Your task to perform on an android device: See recent photos Image 0: 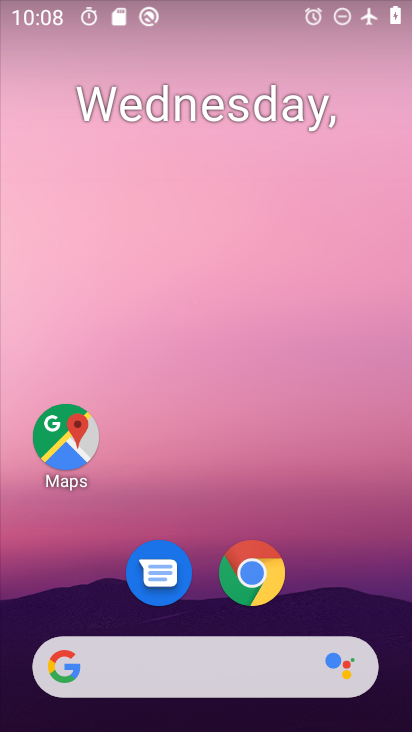
Step 0: drag from (336, 598) to (322, 156)
Your task to perform on an android device: See recent photos Image 1: 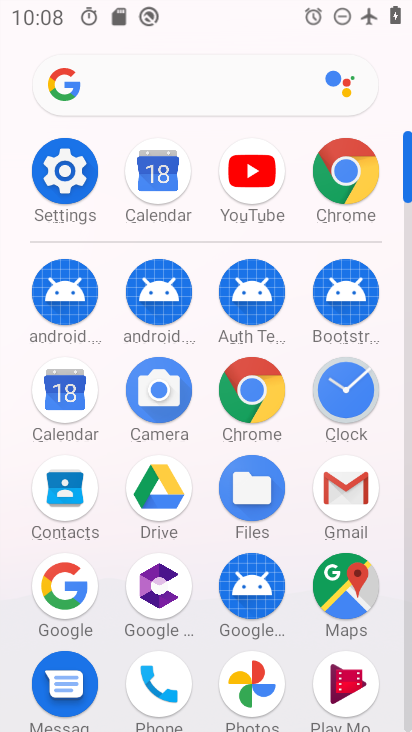
Step 1: drag from (281, 541) to (324, 198)
Your task to perform on an android device: See recent photos Image 2: 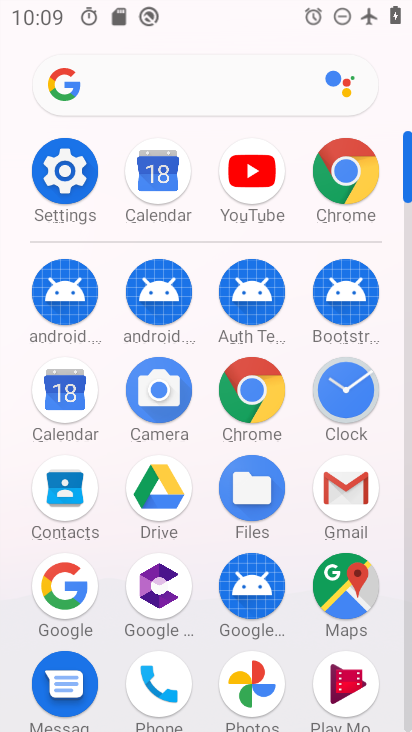
Step 2: click (257, 681)
Your task to perform on an android device: See recent photos Image 3: 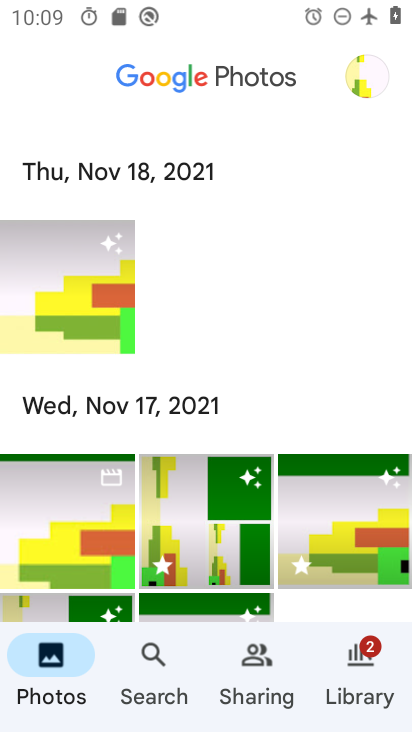
Step 3: press home button
Your task to perform on an android device: See recent photos Image 4: 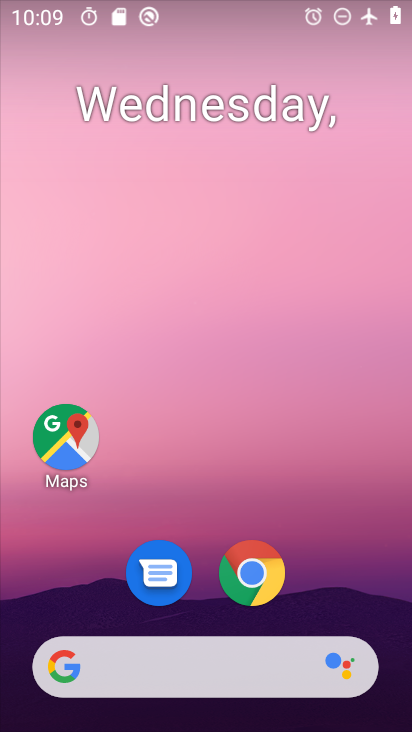
Step 4: drag from (287, 636) to (290, 324)
Your task to perform on an android device: See recent photos Image 5: 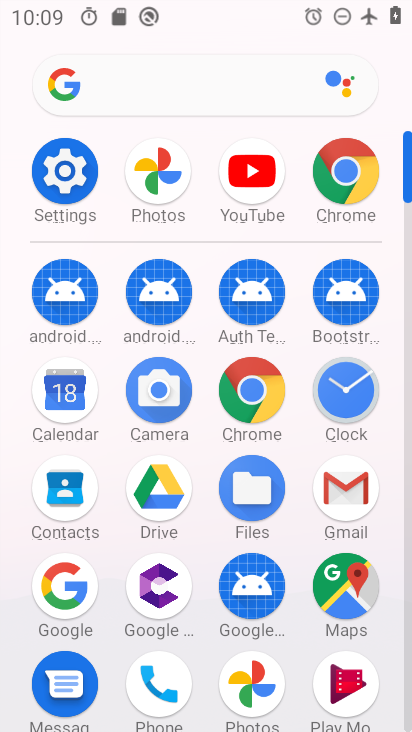
Step 5: click (260, 679)
Your task to perform on an android device: See recent photos Image 6: 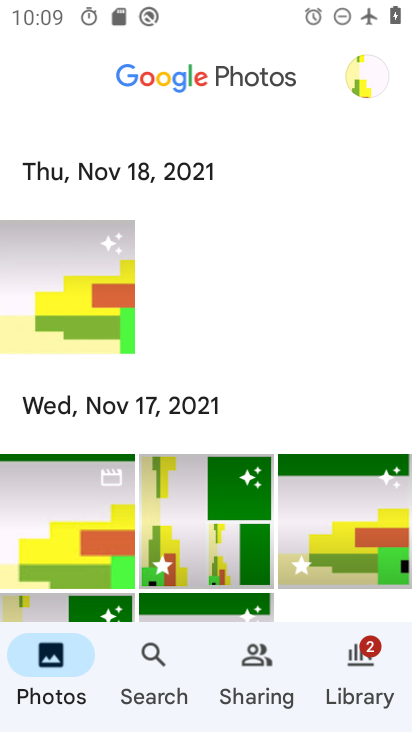
Step 6: task complete